Your task to perform on an android device: Open maps Image 0: 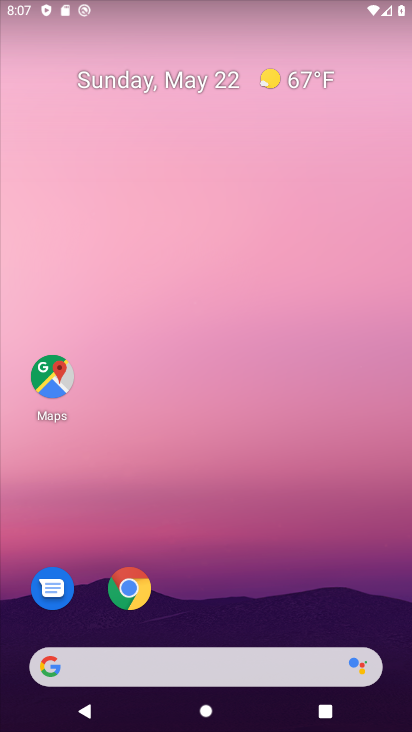
Step 0: click (56, 379)
Your task to perform on an android device: Open maps Image 1: 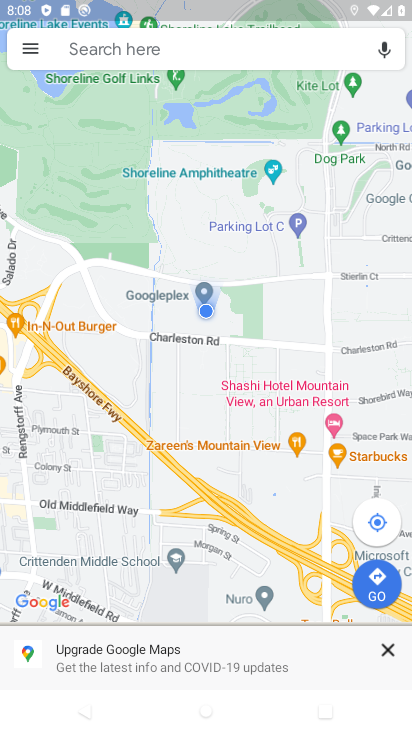
Step 1: task complete